Your task to perform on an android device: Open the map Image 0: 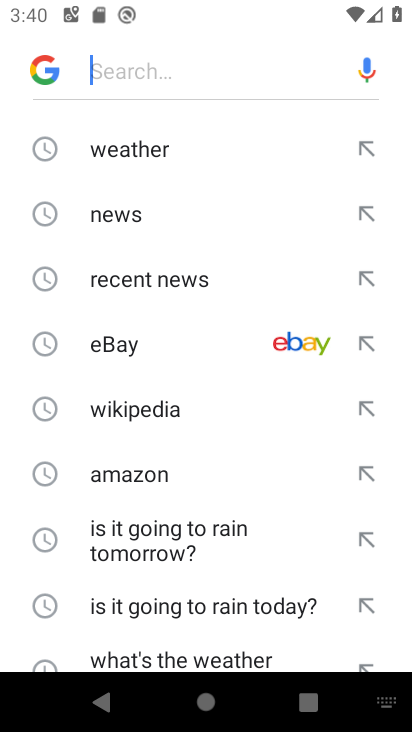
Step 0: press home button
Your task to perform on an android device: Open the map Image 1: 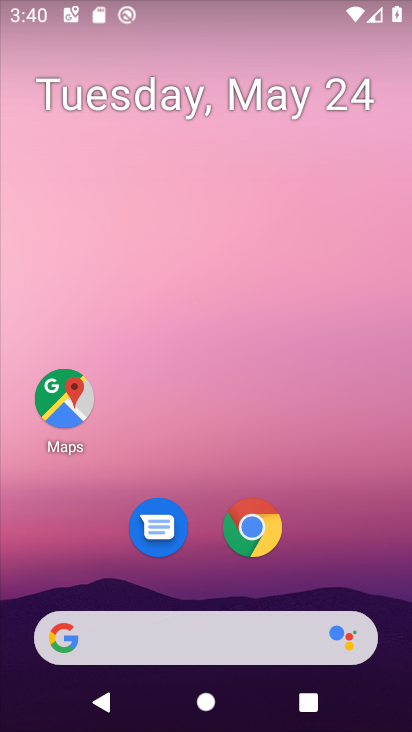
Step 1: click (65, 399)
Your task to perform on an android device: Open the map Image 2: 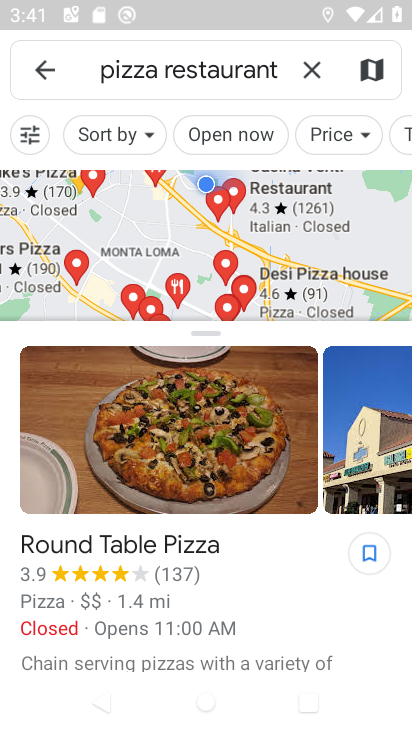
Step 2: task complete